Your task to perform on an android device: Open privacy settings Image 0: 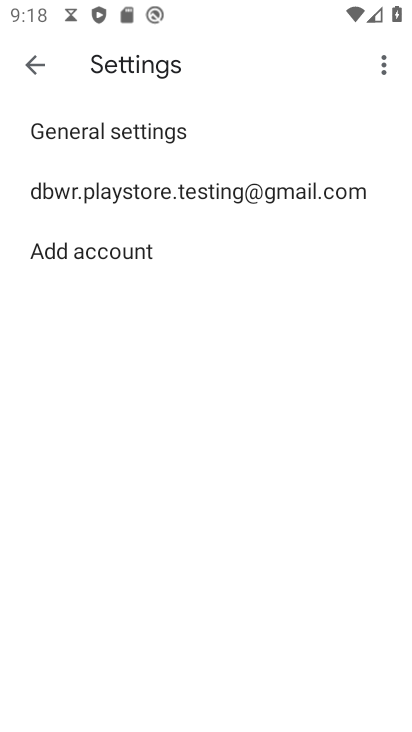
Step 0: press home button
Your task to perform on an android device: Open privacy settings Image 1: 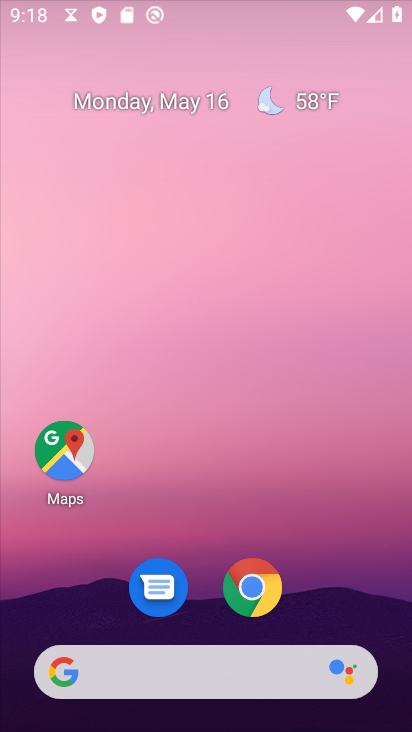
Step 1: drag from (175, 635) to (220, 139)
Your task to perform on an android device: Open privacy settings Image 2: 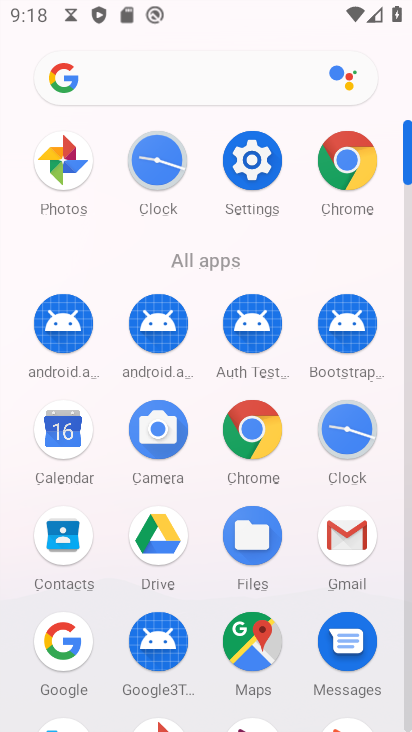
Step 2: click (262, 171)
Your task to perform on an android device: Open privacy settings Image 3: 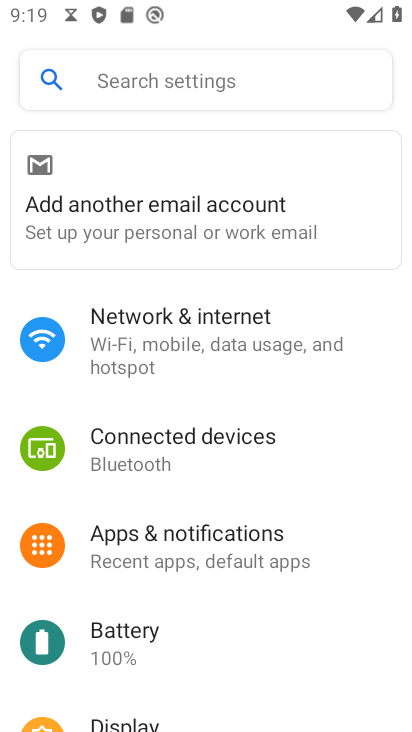
Step 3: drag from (252, 636) to (251, 192)
Your task to perform on an android device: Open privacy settings Image 4: 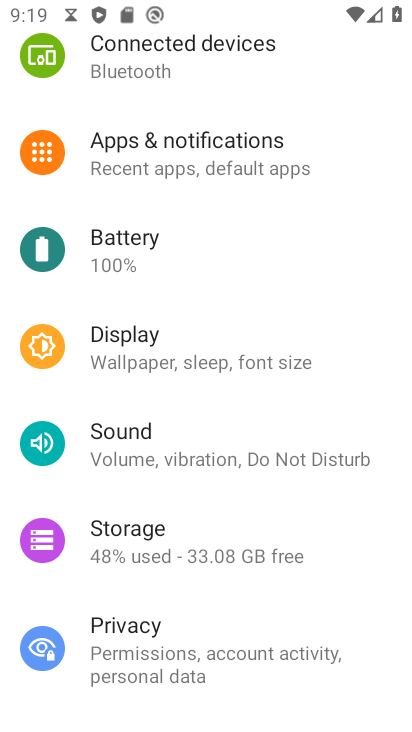
Step 4: click (124, 664)
Your task to perform on an android device: Open privacy settings Image 5: 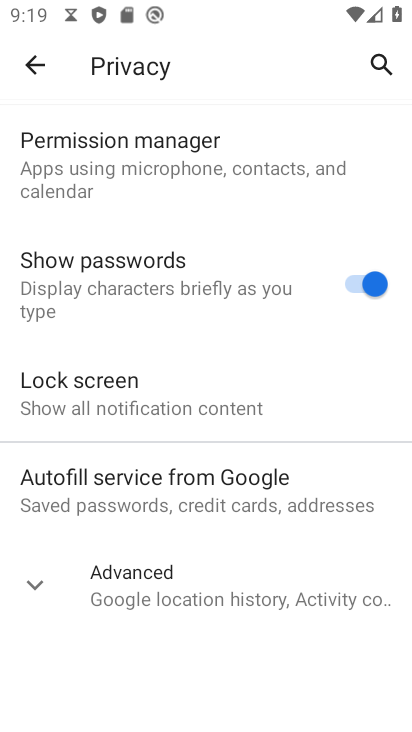
Step 5: task complete